Your task to perform on an android device: make emails show in primary in the gmail app Image 0: 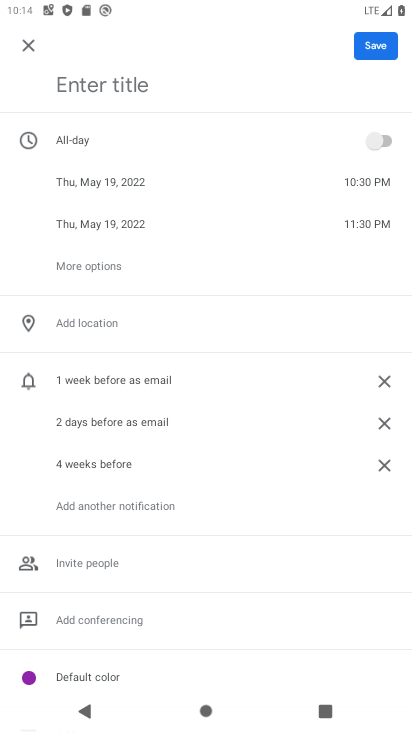
Step 0: press home button
Your task to perform on an android device: make emails show in primary in the gmail app Image 1: 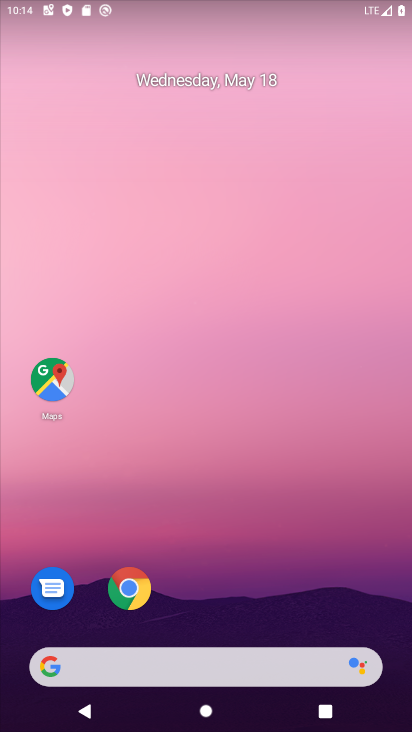
Step 1: drag from (330, 621) to (380, 26)
Your task to perform on an android device: make emails show in primary in the gmail app Image 2: 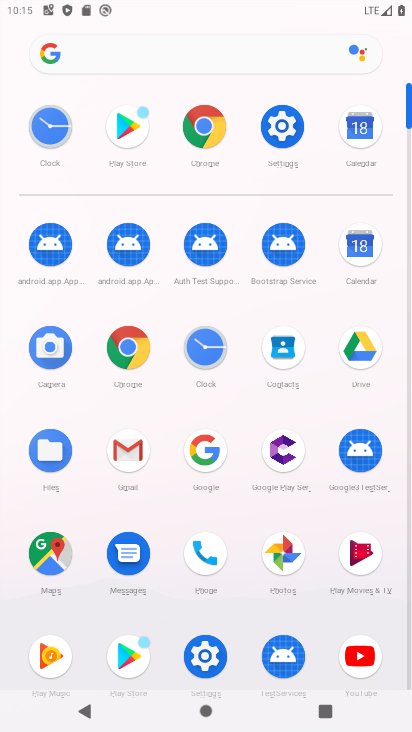
Step 2: click (122, 451)
Your task to perform on an android device: make emails show in primary in the gmail app Image 3: 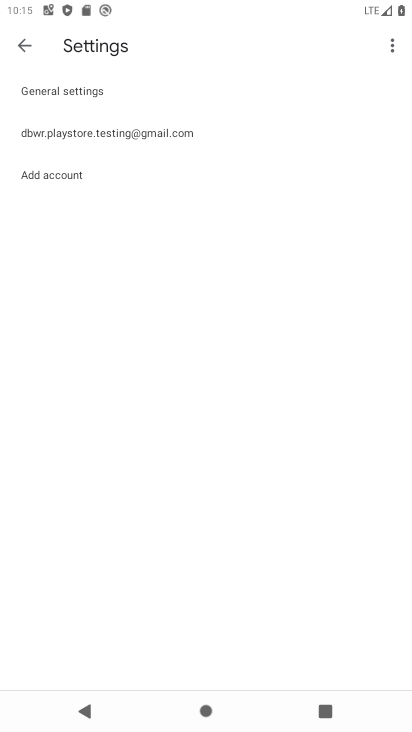
Step 3: click (94, 129)
Your task to perform on an android device: make emails show in primary in the gmail app Image 4: 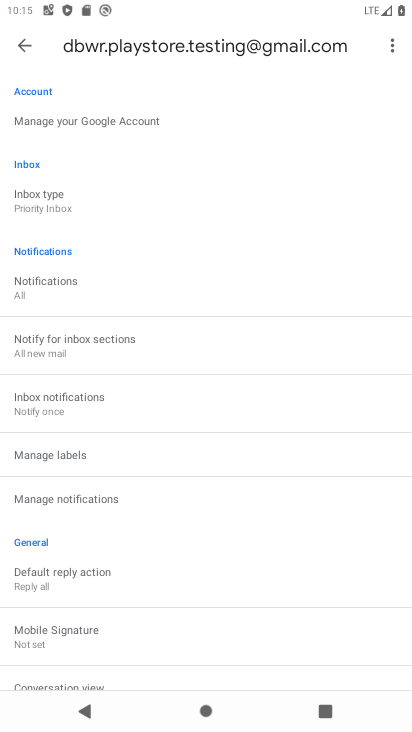
Step 4: click (32, 204)
Your task to perform on an android device: make emails show in primary in the gmail app Image 5: 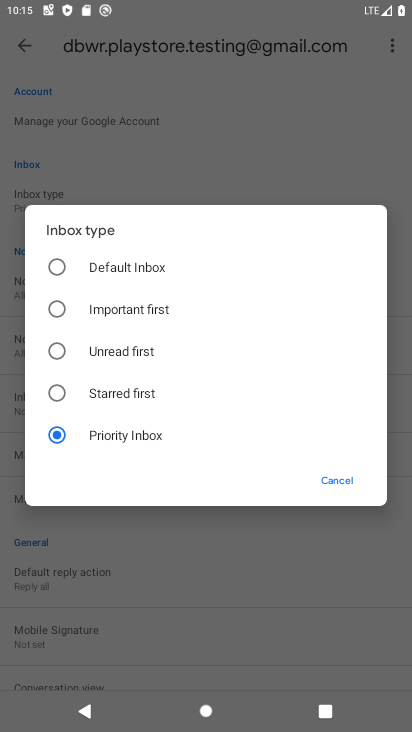
Step 5: click (329, 479)
Your task to perform on an android device: make emails show in primary in the gmail app Image 6: 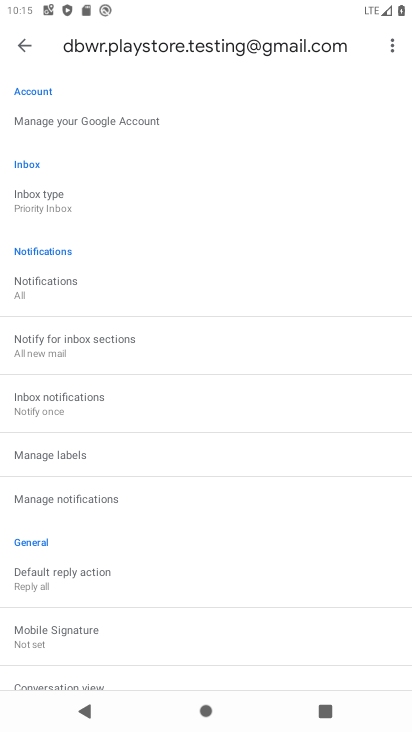
Step 6: task complete